Your task to perform on an android device: Search for vegetarian restaurants on Maps Image 0: 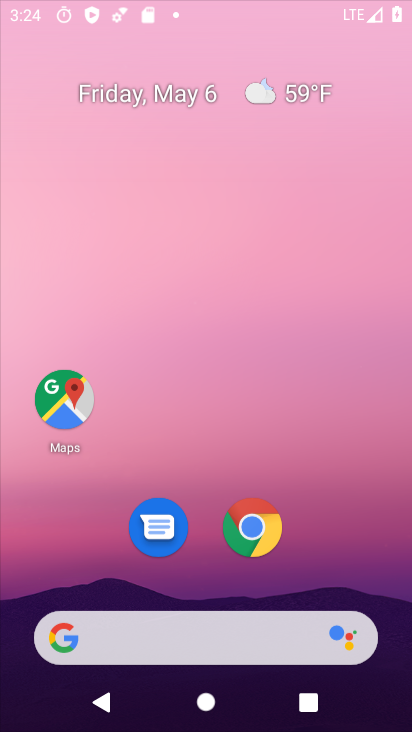
Step 0: click (233, 189)
Your task to perform on an android device: Search for vegetarian restaurants on Maps Image 1: 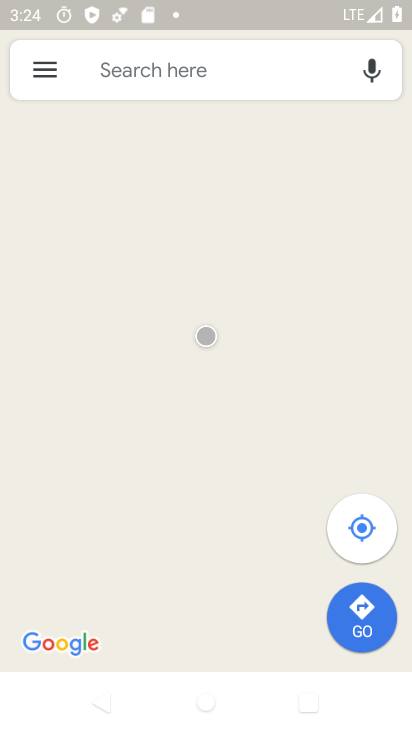
Step 1: press home button
Your task to perform on an android device: Search for vegetarian restaurants on Maps Image 2: 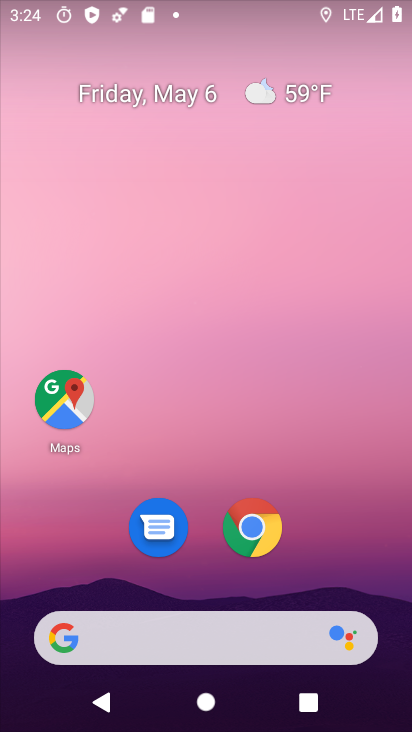
Step 2: drag from (317, 564) to (199, 165)
Your task to perform on an android device: Search for vegetarian restaurants on Maps Image 3: 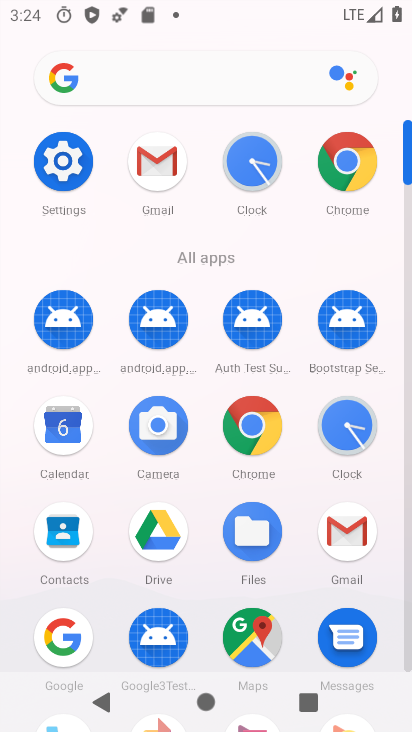
Step 3: click (67, 444)
Your task to perform on an android device: Search for vegetarian restaurants on Maps Image 4: 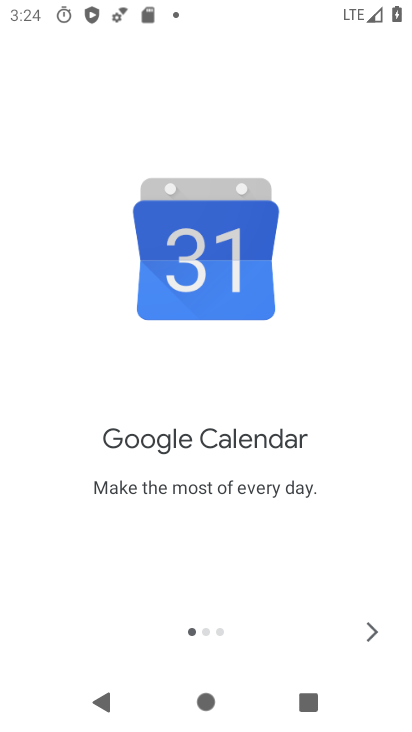
Step 4: click (366, 631)
Your task to perform on an android device: Search for vegetarian restaurants on Maps Image 5: 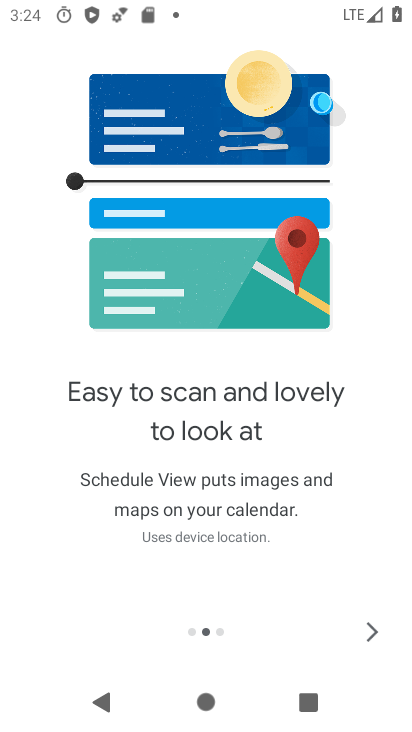
Step 5: click (366, 631)
Your task to perform on an android device: Search for vegetarian restaurants on Maps Image 6: 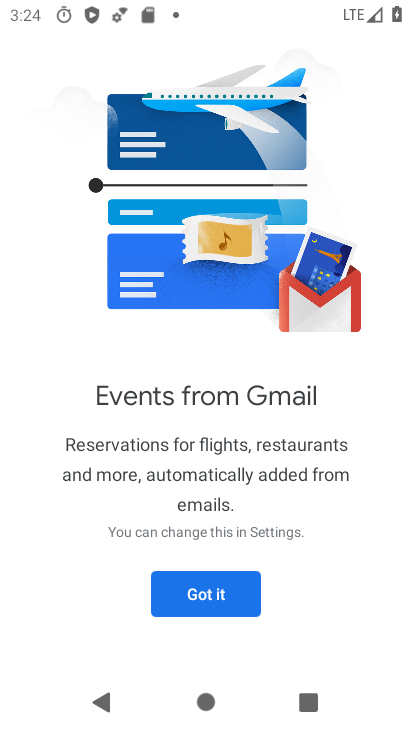
Step 6: click (185, 594)
Your task to perform on an android device: Search for vegetarian restaurants on Maps Image 7: 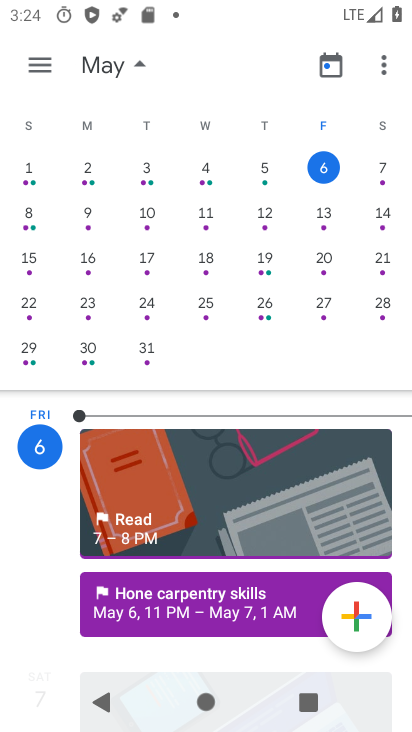
Step 7: click (43, 67)
Your task to perform on an android device: Search for vegetarian restaurants on Maps Image 8: 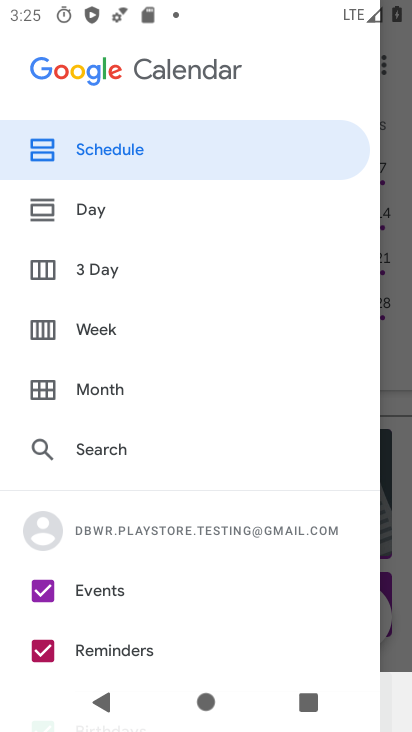
Step 8: task complete